Your task to perform on an android device: change the clock display to analog Image 0: 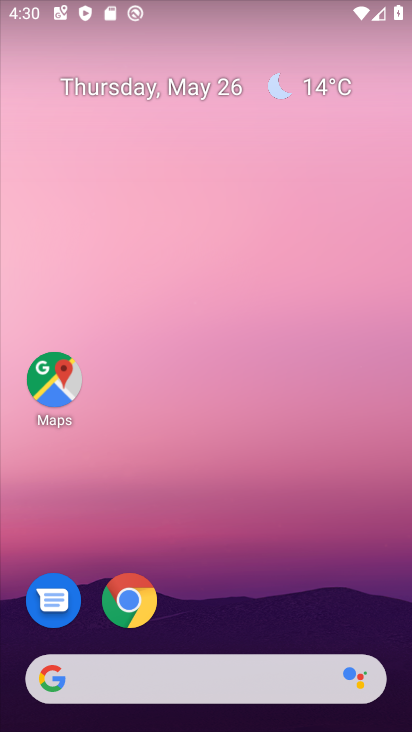
Step 0: drag from (211, 619) to (216, 17)
Your task to perform on an android device: change the clock display to analog Image 1: 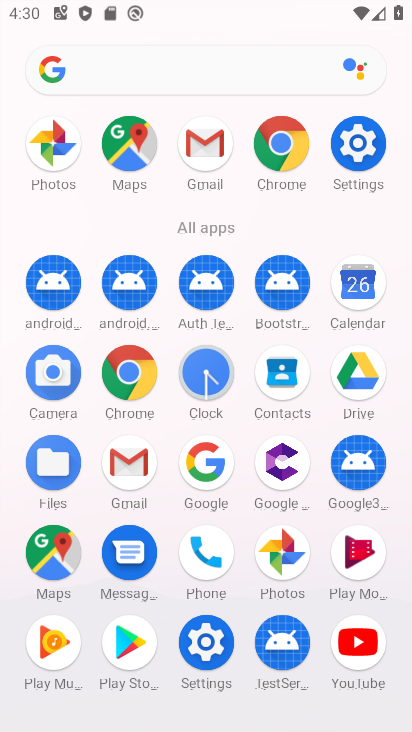
Step 1: click (220, 381)
Your task to perform on an android device: change the clock display to analog Image 2: 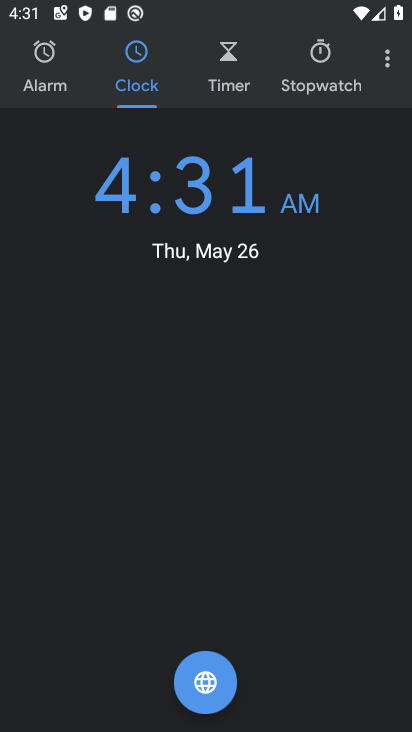
Step 2: click (373, 53)
Your task to perform on an android device: change the clock display to analog Image 3: 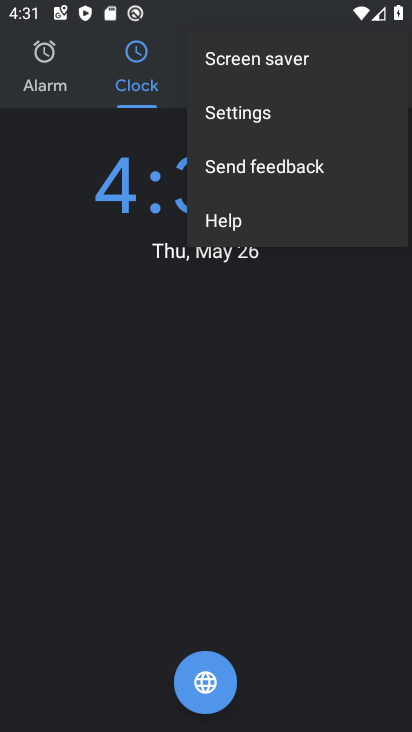
Step 3: click (236, 112)
Your task to perform on an android device: change the clock display to analog Image 4: 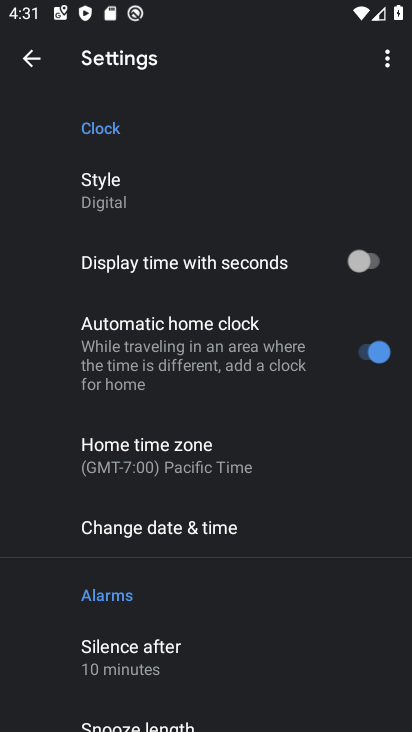
Step 4: click (142, 194)
Your task to perform on an android device: change the clock display to analog Image 5: 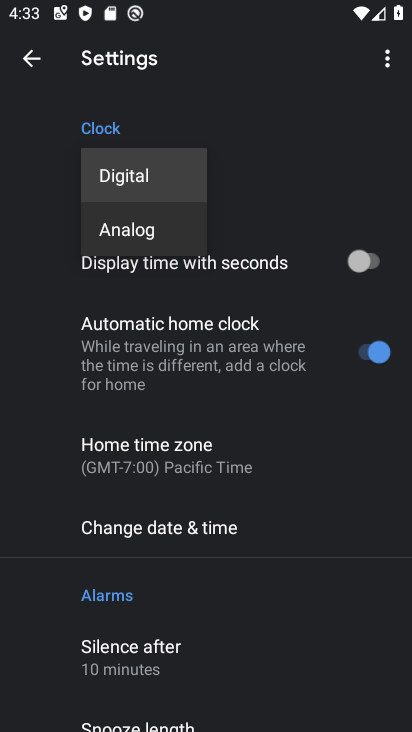
Step 5: task complete